Your task to perform on an android device: open app "Chime – Mobile Banking" (install if not already installed) Image 0: 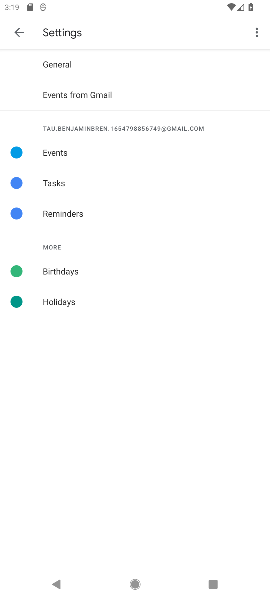
Step 0: click (24, 31)
Your task to perform on an android device: open app "Chime – Mobile Banking" (install if not already installed) Image 1: 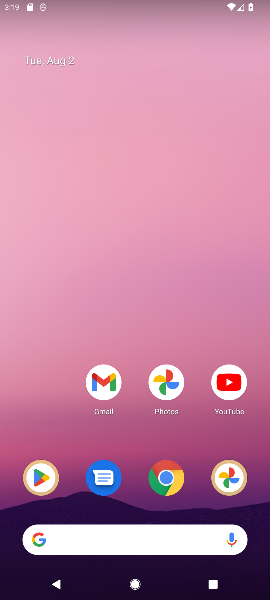
Step 1: drag from (148, 437) to (93, 22)
Your task to perform on an android device: open app "Chime – Mobile Banking" (install if not already installed) Image 2: 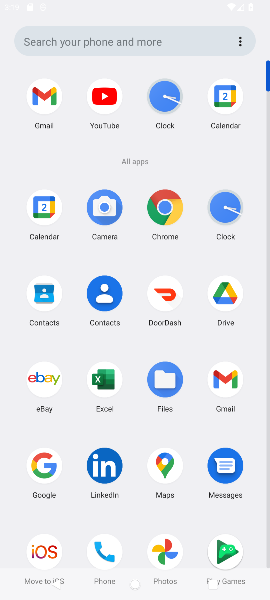
Step 2: drag from (146, 457) to (125, 27)
Your task to perform on an android device: open app "Chime – Mobile Banking" (install if not already installed) Image 3: 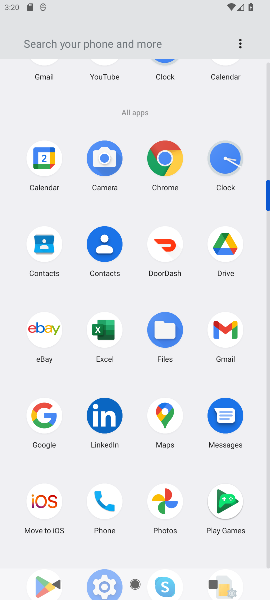
Step 3: drag from (148, 367) to (163, 157)
Your task to perform on an android device: open app "Chime – Mobile Banking" (install if not already installed) Image 4: 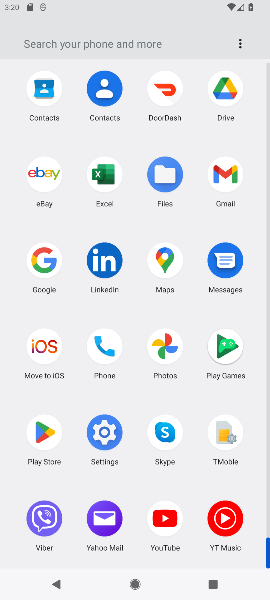
Step 4: drag from (165, 371) to (165, 180)
Your task to perform on an android device: open app "Chime – Mobile Banking" (install if not already installed) Image 5: 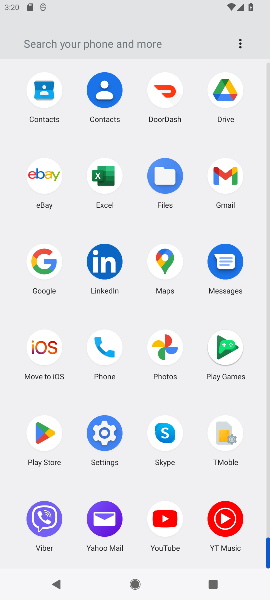
Step 5: click (51, 442)
Your task to perform on an android device: open app "Chime – Mobile Banking" (install if not already installed) Image 6: 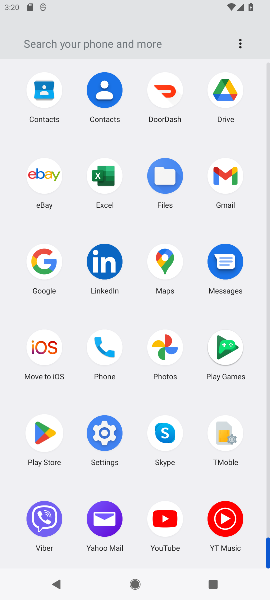
Step 6: click (51, 442)
Your task to perform on an android device: open app "Chime – Mobile Banking" (install if not already installed) Image 7: 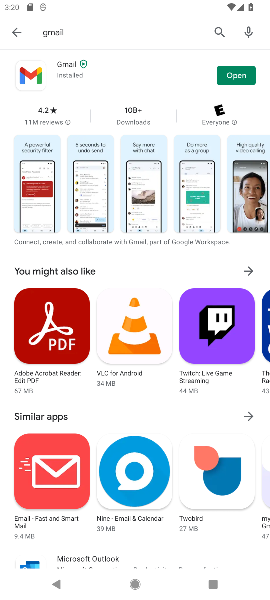
Step 7: click (16, 29)
Your task to perform on an android device: open app "Chime – Mobile Banking" (install if not already installed) Image 8: 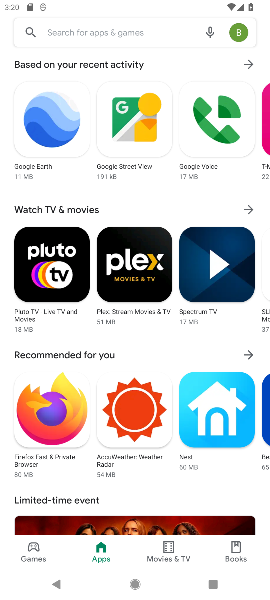
Step 8: click (68, 26)
Your task to perform on an android device: open app "Chime – Mobile Banking" (install if not already installed) Image 9: 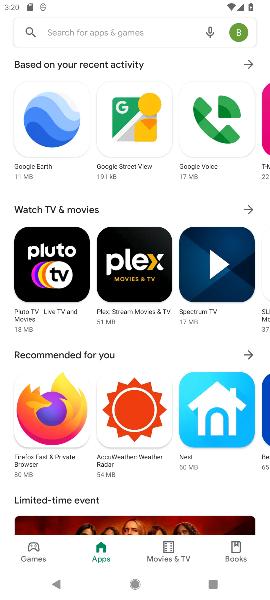
Step 9: click (66, 38)
Your task to perform on an android device: open app "Chime – Mobile Banking" (install if not already installed) Image 10: 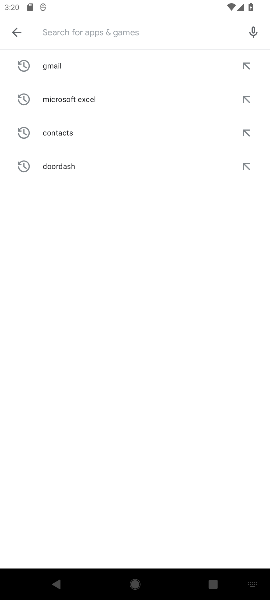
Step 10: type "chime mobile banking"
Your task to perform on an android device: open app "Chime – Mobile Banking" (install if not already installed) Image 11: 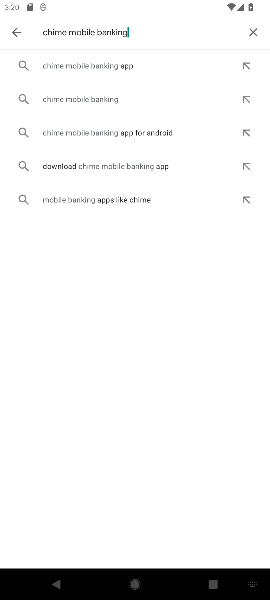
Step 11: click (245, 69)
Your task to perform on an android device: open app "Chime – Mobile Banking" (install if not already installed) Image 12: 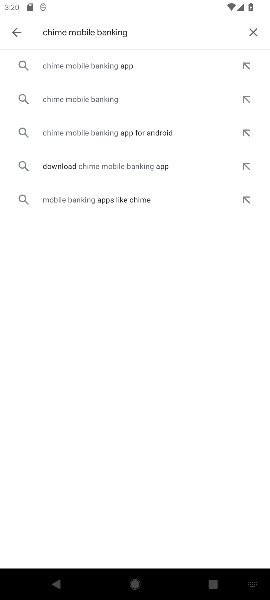
Step 12: click (246, 67)
Your task to perform on an android device: open app "Chime – Mobile Banking" (install if not already installed) Image 13: 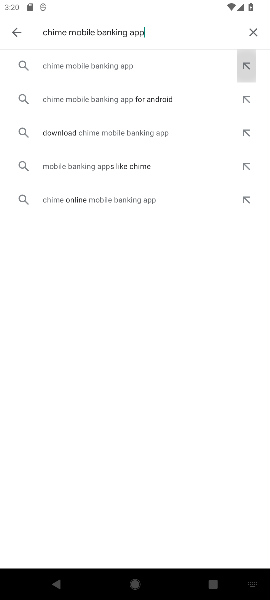
Step 13: click (247, 67)
Your task to perform on an android device: open app "Chime – Mobile Banking" (install if not already installed) Image 14: 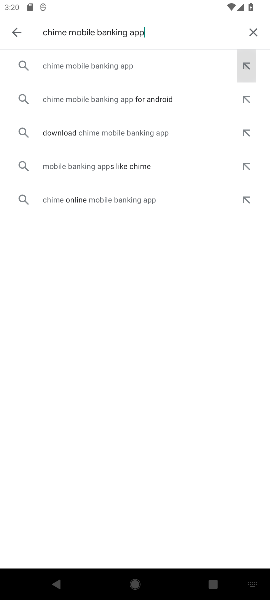
Step 14: click (250, 68)
Your task to perform on an android device: open app "Chime – Mobile Banking" (install if not already installed) Image 15: 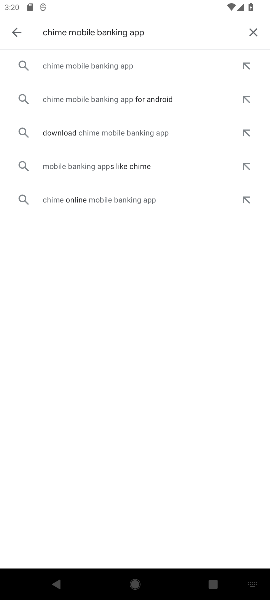
Step 15: click (99, 66)
Your task to perform on an android device: open app "Chime – Mobile Banking" (install if not already installed) Image 16: 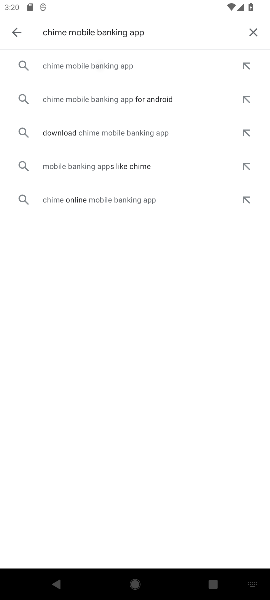
Step 16: click (100, 64)
Your task to perform on an android device: open app "Chime – Mobile Banking" (install if not already installed) Image 17: 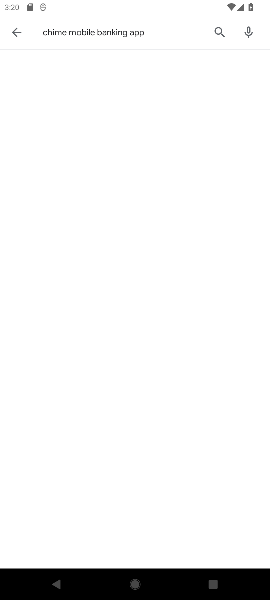
Step 17: click (101, 65)
Your task to perform on an android device: open app "Chime – Mobile Banking" (install if not already installed) Image 18: 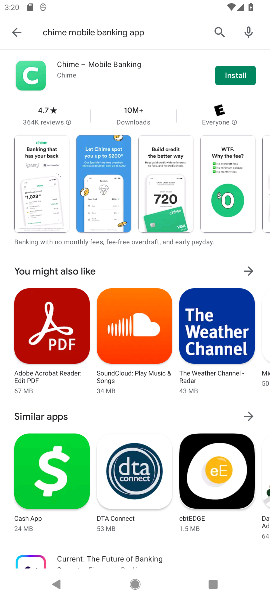
Step 18: click (248, 71)
Your task to perform on an android device: open app "Chime – Mobile Banking" (install if not already installed) Image 19: 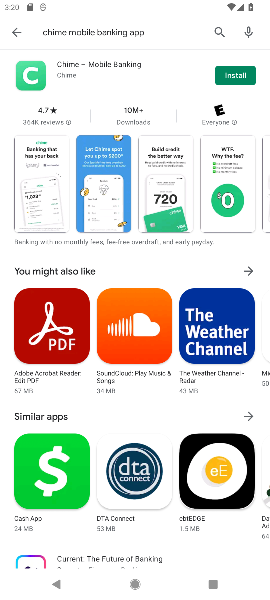
Step 19: click (248, 71)
Your task to perform on an android device: open app "Chime – Mobile Banking" (install if not already installed) Image 20: 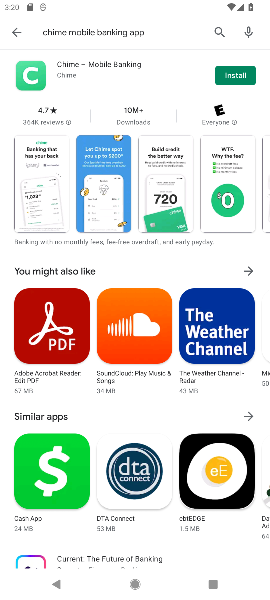
Step 20: click (237, 73)
Your task to perform on an android device: open app "Chime – Mobile Banking" (install if not already installed) Image 21: 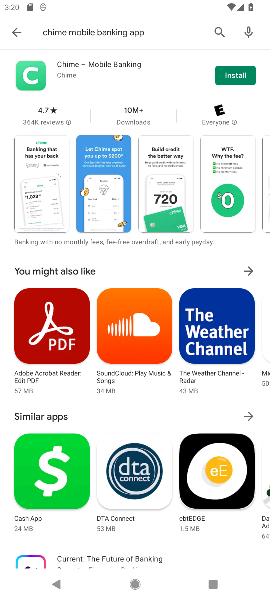
Step 21: click (237, 74)
Your task to perform on an android device: open app "Chime – Mobile Banking" (install if not already installed) Image 22: 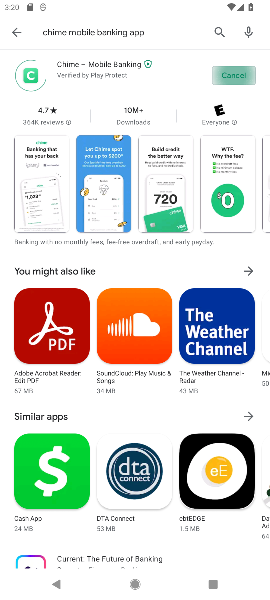
Step 22: click (240, 77)
Your task to perform on an android device: open app "Chime – Mobile Banking" (install if not already installed) Image 23: 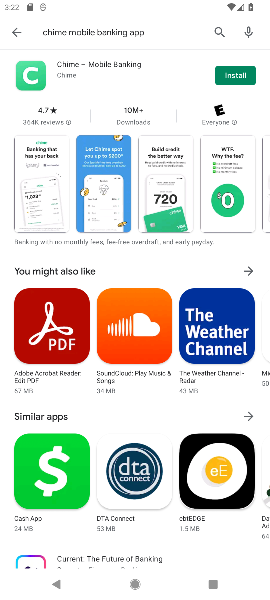
Step 23: click (236, 78)
Your task to perform on an android device: open app "Chime – Mobile Banking" (install if not already installed) Image 24: 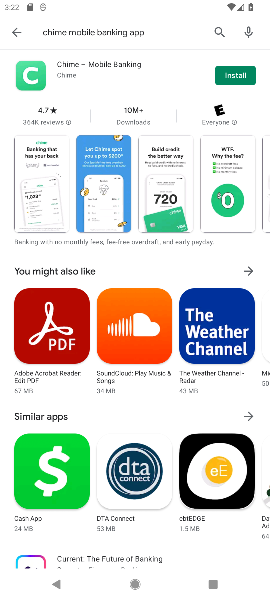
Step 24: click (236, 78)
Your task to perform on an android device: open app "Chime – Mobile Banking" (install if not already installed) Image 25: 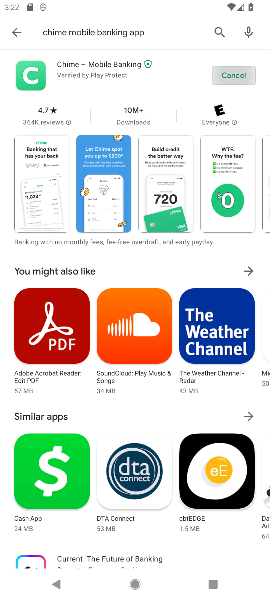
Step 25: click (236, 78)
Your task to perform on an android device: open app "Chime – Mobile Banking" (install if not already installed) Image 26: 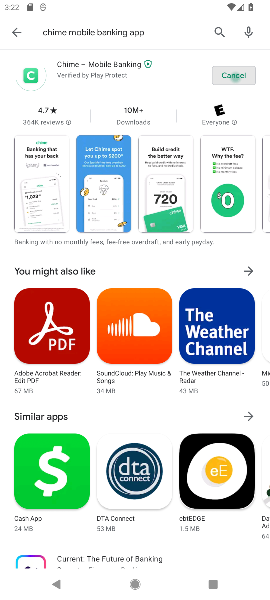
Step 26: click (236, 78)
Your task to perform on an android device: open app "Chime – Mobile Banking" (install if not already installed) Image 27: 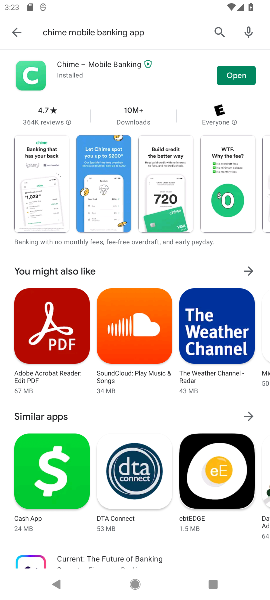
Step 27: click (241, 64)
Your task to perform on an android device: open app "Chime – Mobile Banking" (install if not already installed) Image 28: 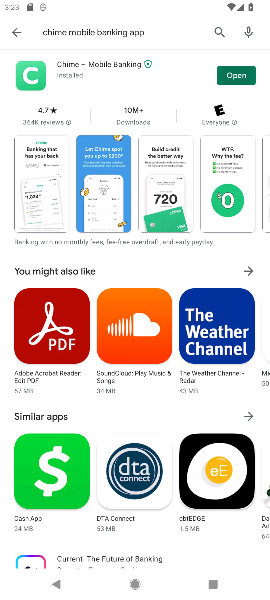
Step 28: click (240, 71)
Your task to perform on an android device: open app "Chime – Mobile Banking" (install if not already installed) Image 29: 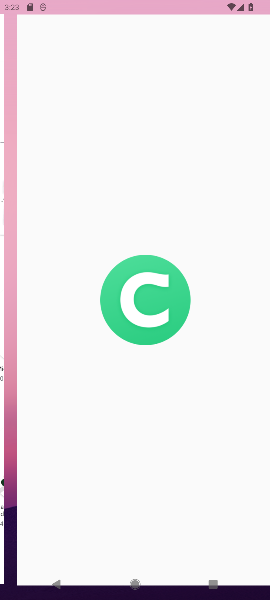
Step 29: click (240, 71)
Your task to perform on an android device: open app "Chime – Mobile Banking" (install if not already installed) Image 30: 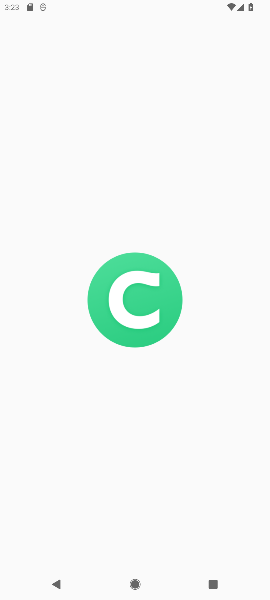
Step 30: click (240, 72)
Your task to perform on an android device: open app "Chime – Mobile Banking" (install if not already installed) Image 31: 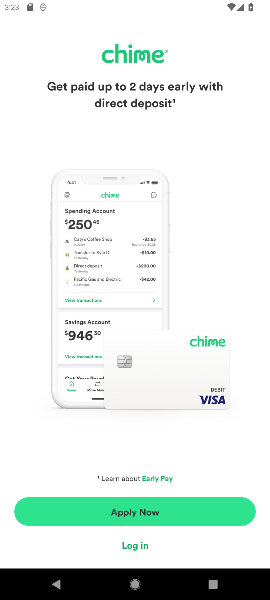
Step 31: task complete